Your task to perform on an android device: Go to Maps Image 0: 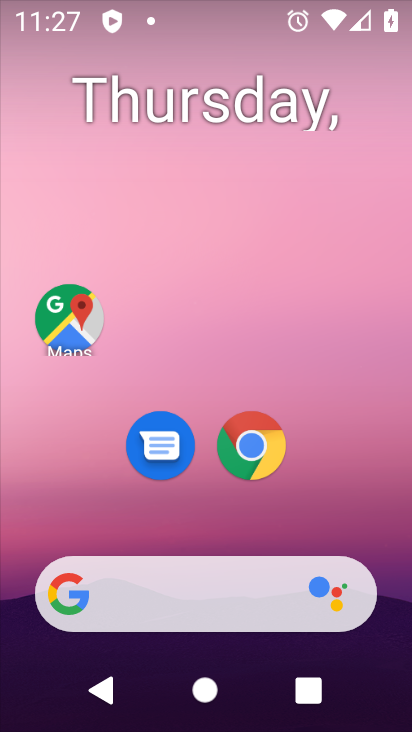
Step 0: click (83, 306)
Your task to perform on an android device: Go to Maps Image 1: 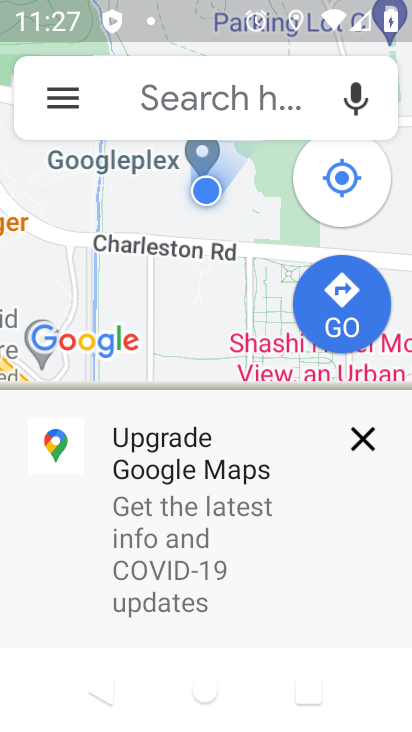
Step 1: task complete